Your task to perform on an android device: Go to settings Image 0: 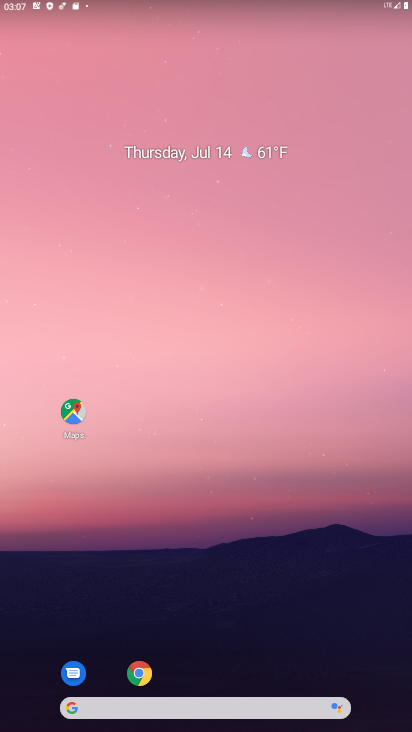
Step 0: drag from (305, 657) to (289, 80)
Your task to perform on an android device: Go to settings Image 1: 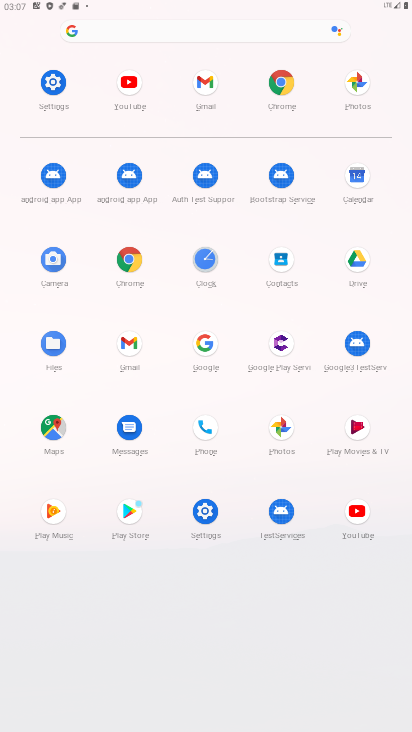
Step 1: click (55, 105)
Your task to perform on an android device: Go to settings Image 2: 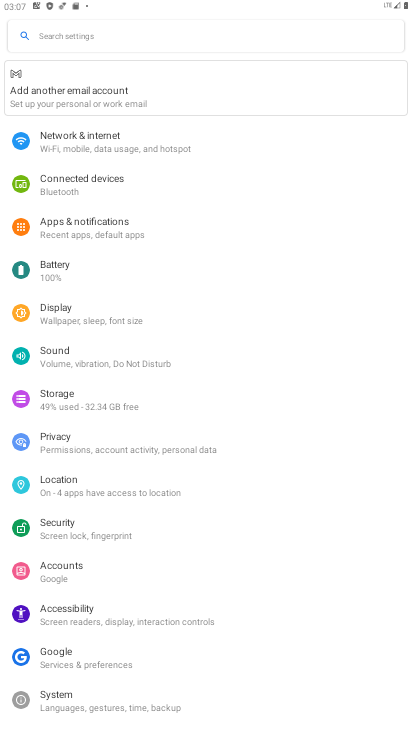
Step 2: task complete